Your task to perform on an android device: turn off data saver in the chrome app Image 0: 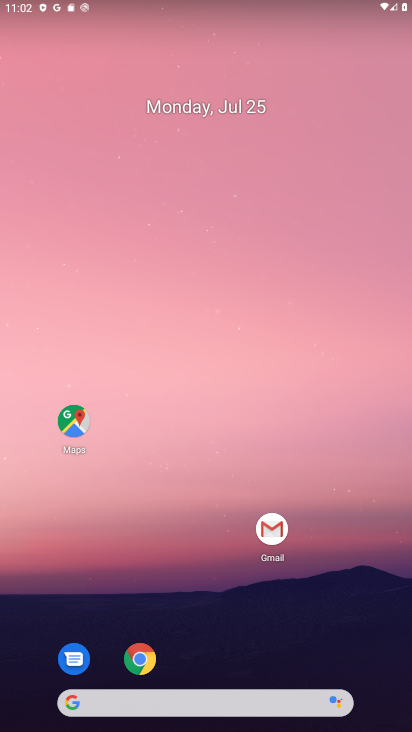
Step 0: click (132, 652)
Your task to perform on an android device: turn off data saver in the chrome app Image 1: 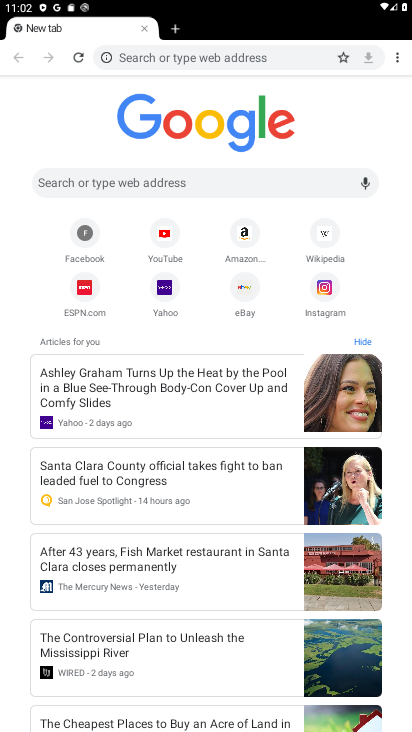
Step 1: click (399, 51)
Your task to perform on an android device: turn off data saver in the chrome app Image 2: 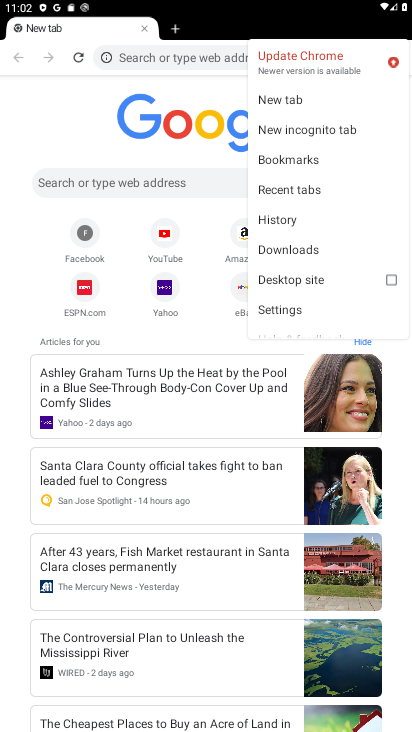
Step 2: click (266, 305)
Your task to perform on an android device: turn off data saver in the chrome app Image 3: 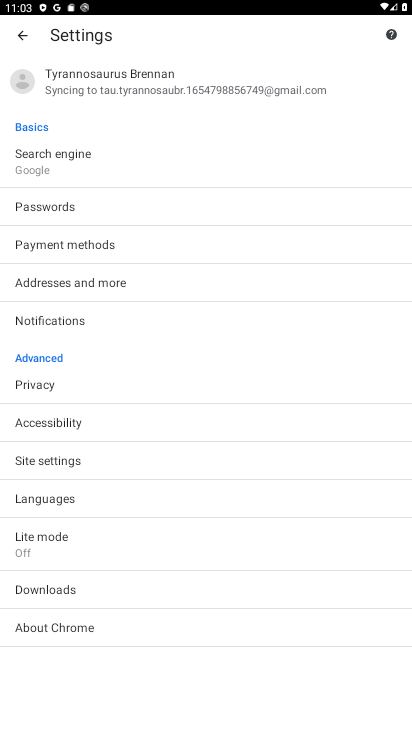
Step 3: click (59, 542)
Your task to perform on an android device: turn off data saver in the chrome app Image 4: 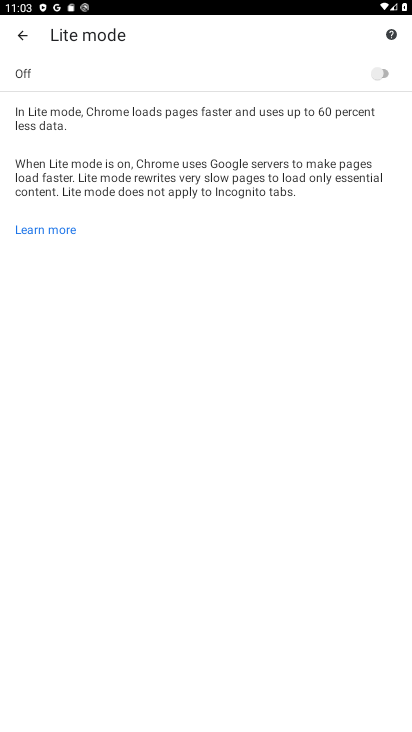
Step 4: click (364, 75)
Your task to perform on an android device: turn off data saver in the chrome app Image 5: 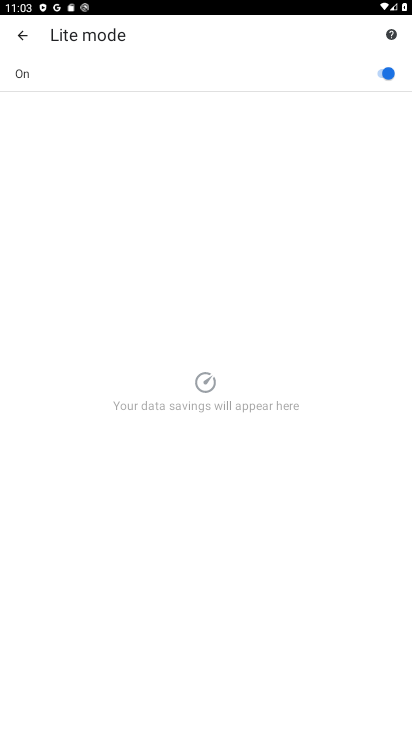
Step 5: click (364, 75)
Your task to perform on an android device: turn off data saver in the chrome app Image 6: 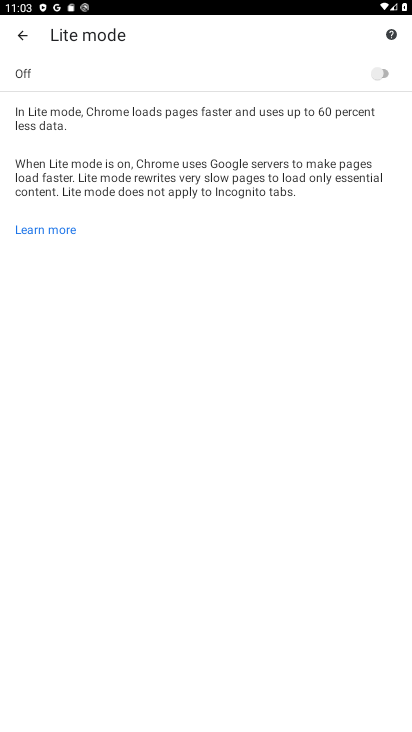
Step 6: task complete